Your task to perform on an android device: install app "Indeed Job Search" Image 0: 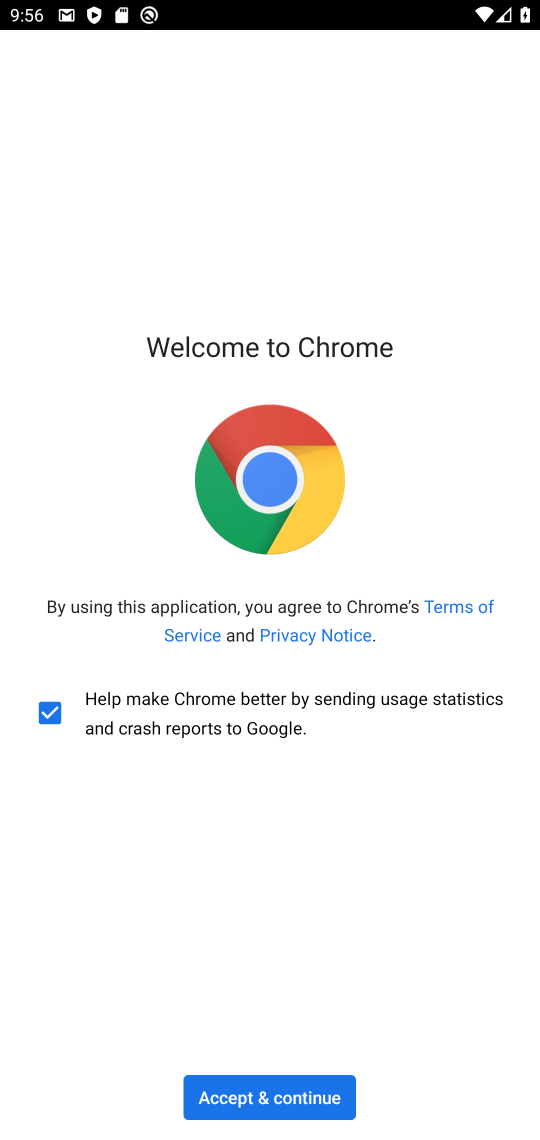
Step 0: press home button
Your task to perform on an android device: install app "Indeed Job Search" Image 1: 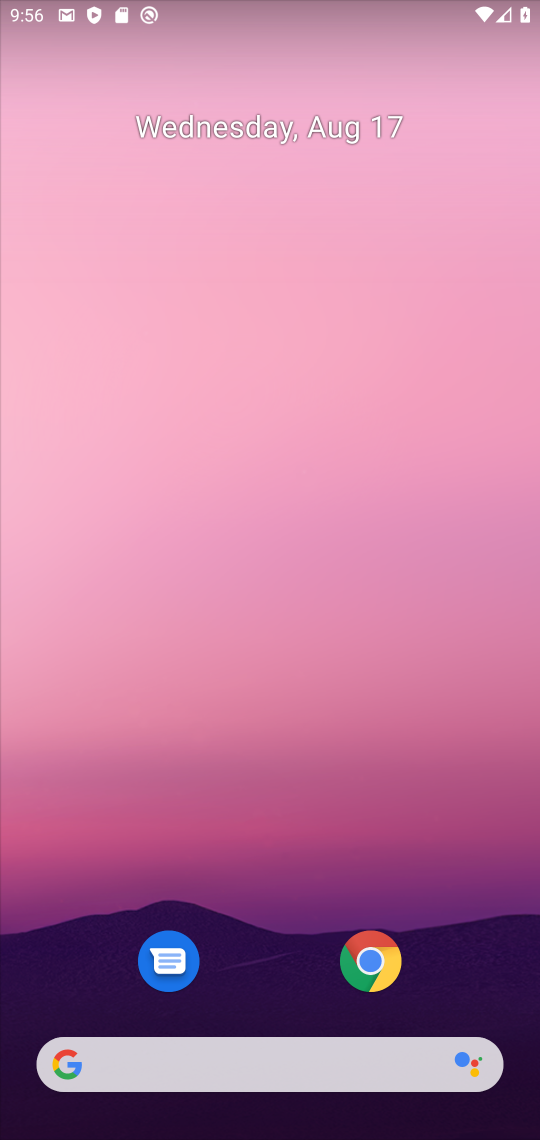
Step 1: drag from (298, 1080) to (380, 166)
Your task to perform on an android device: install app "Indeed Job Search" Image 2: 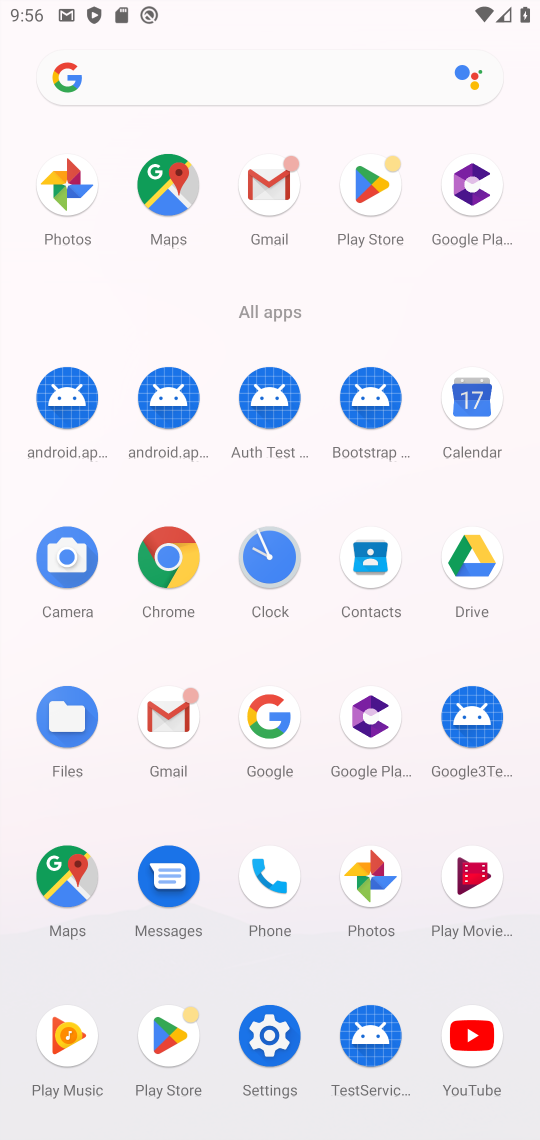
Step 2: click (189, 1012)
Your task to perform on an android device: install app "Indeed Job Search" Image 3: 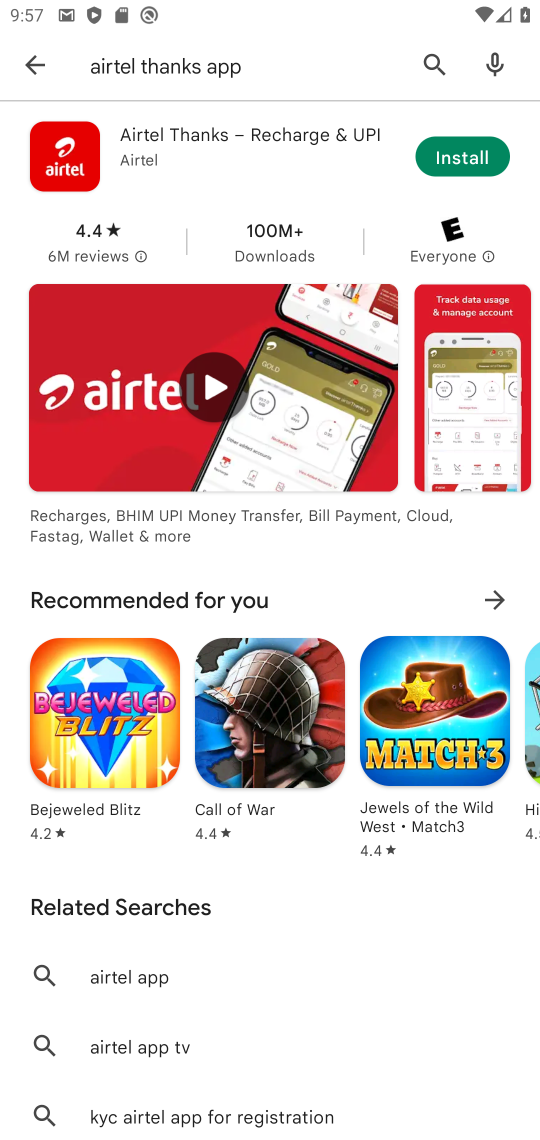
Step 3: click (431, 72)
Your task to perform on an android device: install app "Indeed Job Search" Image 4: 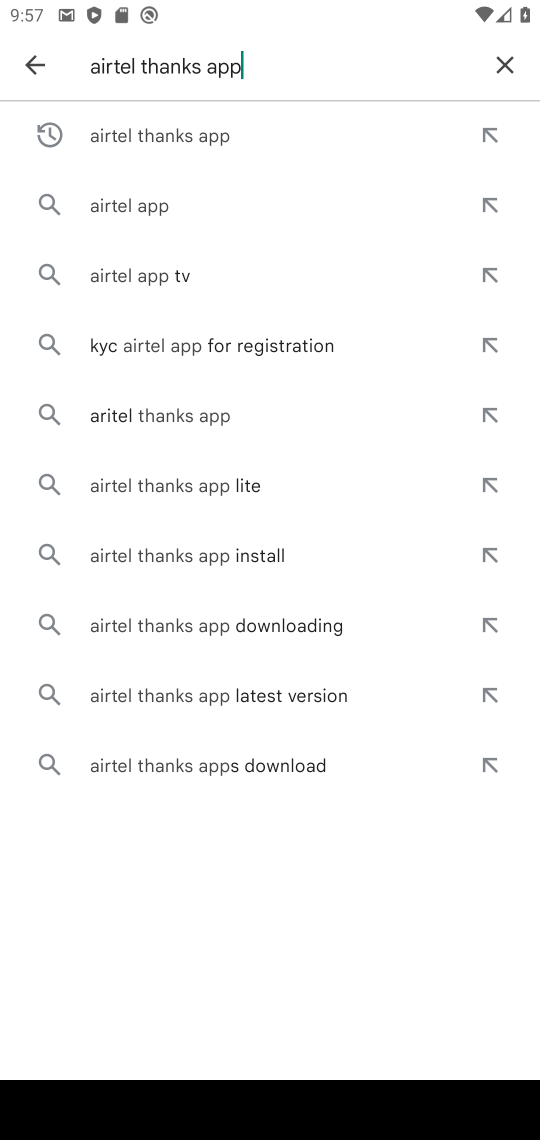
Step 4: click (505, 62)
Your task to perform on an android device: install app "Indeed Job Search" Image 5: 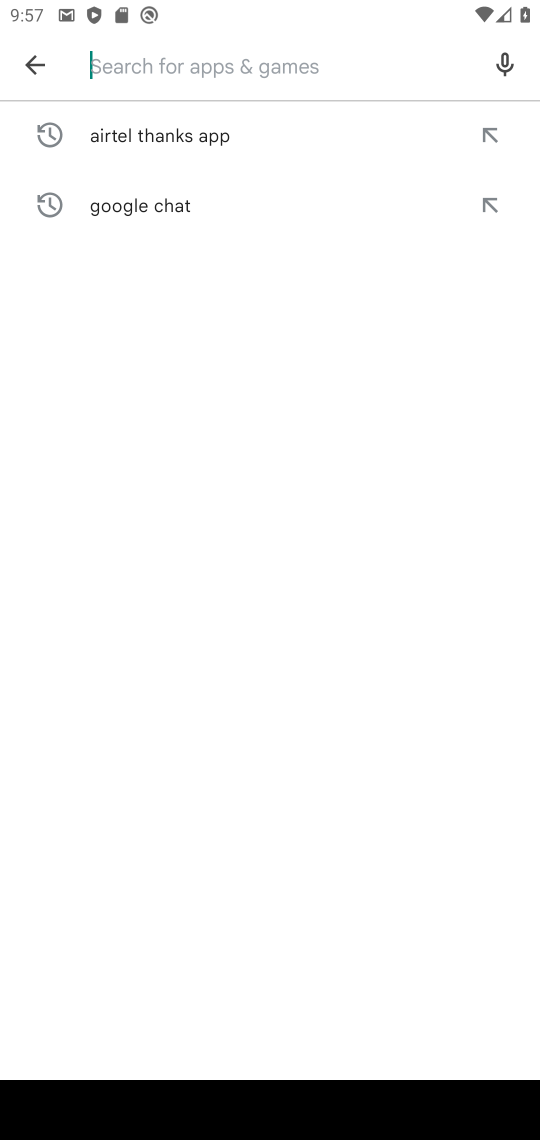
Step 5: type "Indeed Job Search"
Your task to perform on an android device: install app "Indeed Job Search" Image 6: 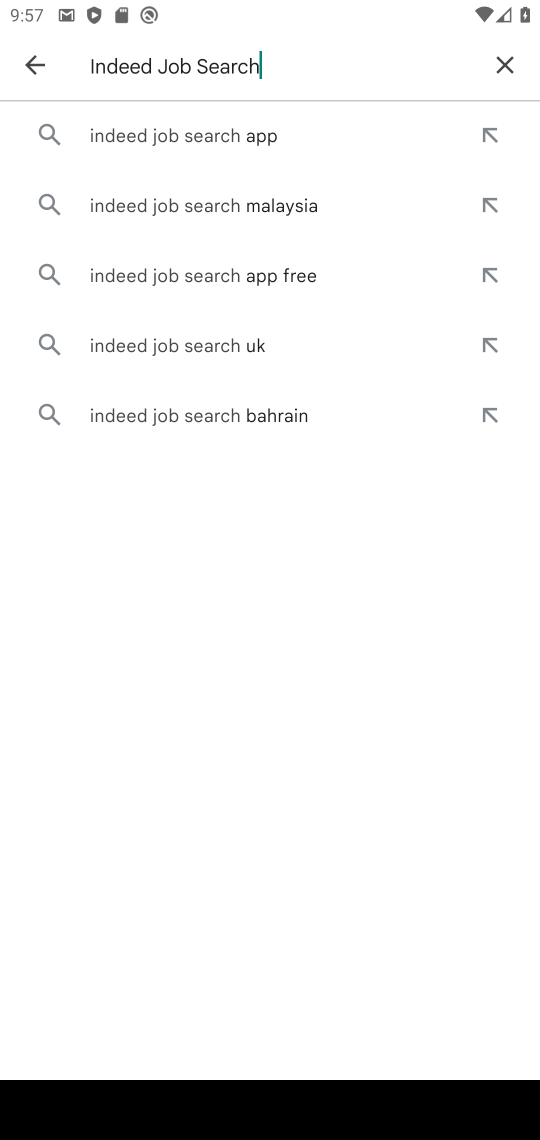
Step 6: click (229, 126)
Your task to perform on an android device: install app "Indeed Job Search" Image 7: 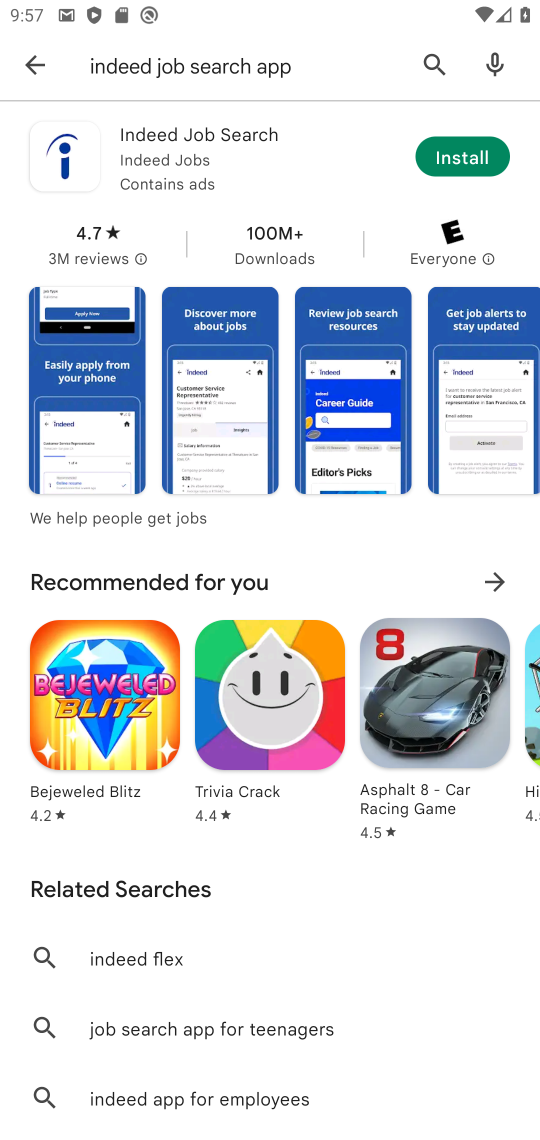
Step 7: click (463, 151)
Your task to perform on an android device: install app "Indeed Job Search" Image 8: 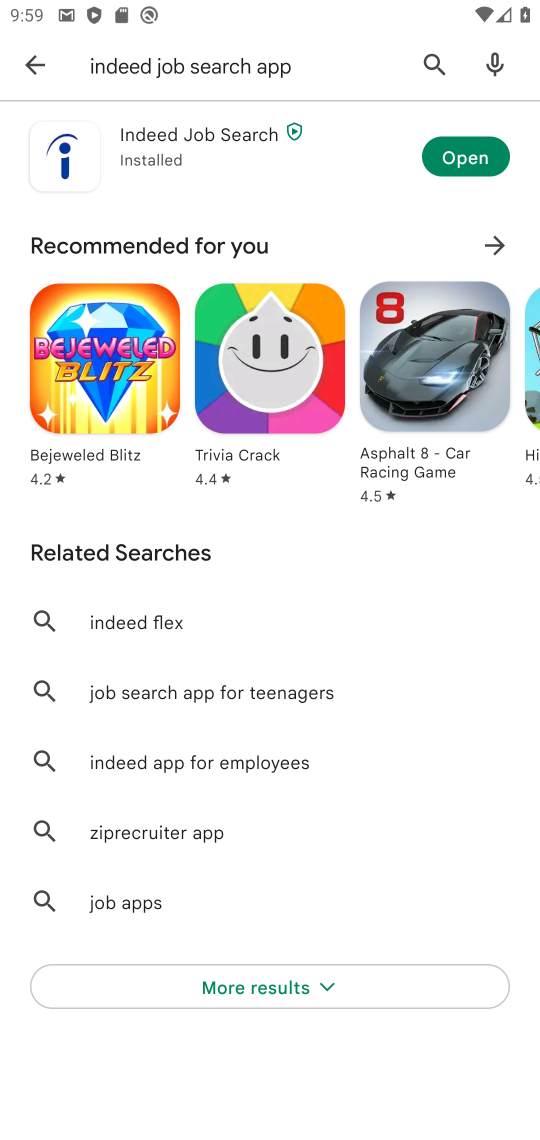
Step 8: task complete